Your task to perform on an android device: Do I have any events this weekend? Image 0: 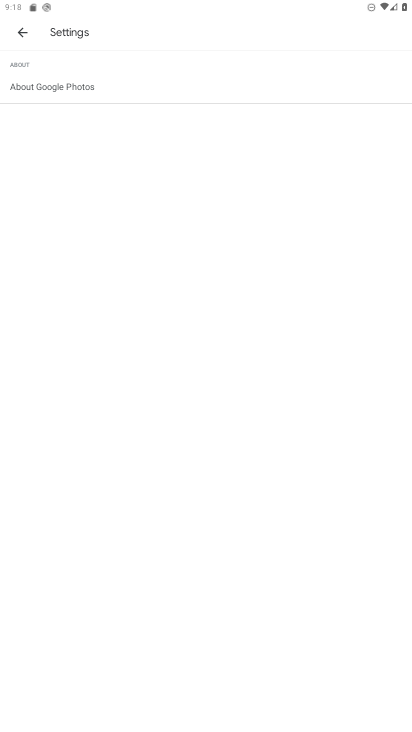
Step 0: press home button
Your task to perform on an android device: Do I have any events this weekend? Image 1: 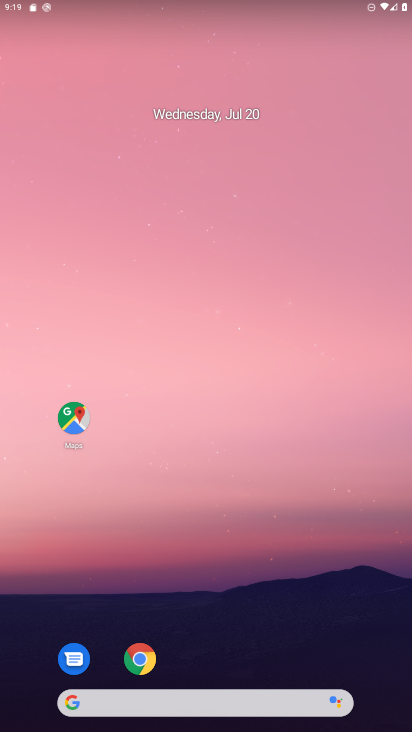
Step 1: drag from (319, 626) to (206, 101)
Your task to perform on an android device: Do I have any events this weekend? Image 2: 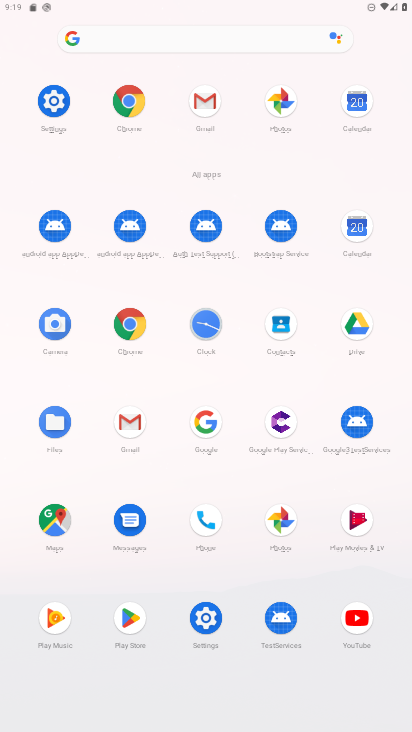
Step 2: click (358, 217)
Your task to perform on an android device: Do I have any events this weekend? Image 3: 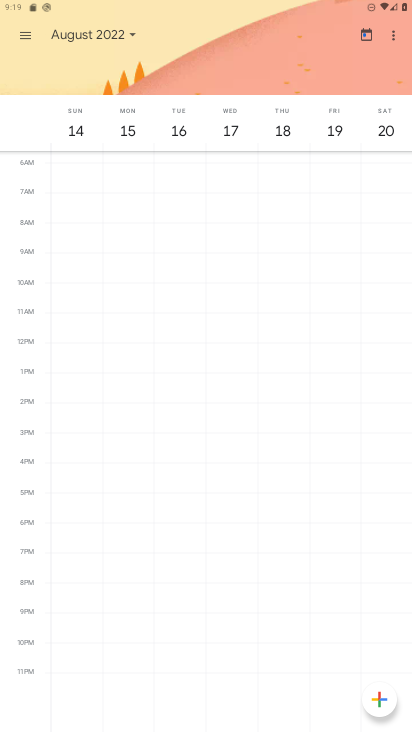
Step 3: click (98, 30)
Your task to perform on an android device: Do I have any events this weekend? Image 4: 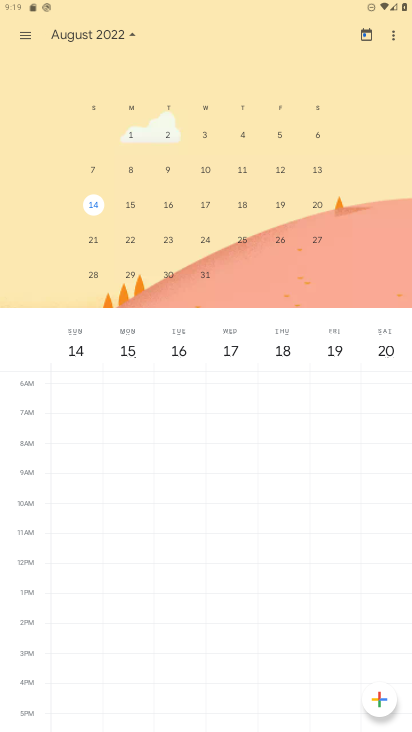
Step 4: drag from (79, 199) to (399, 217)
Your task to perform on an android device: Do I have any events this weekend? Image 5: 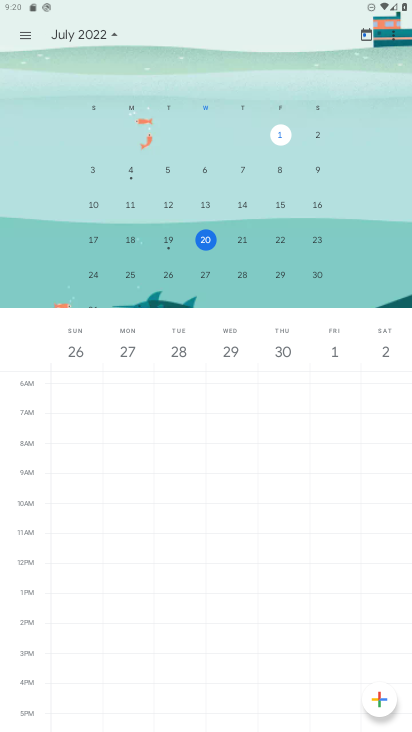
Step 5: click (313, 244)
Your task to perform on an android device: Do I have any events this weekend? Image 6: 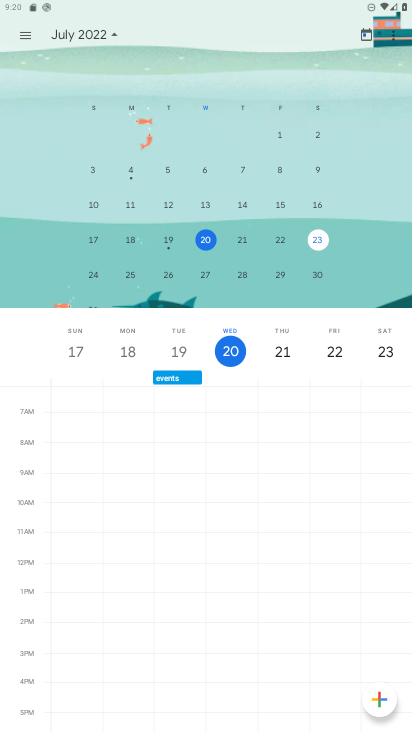
Step 6: task complete